Your task to perform on an android device: Go to Android settings Image 0: 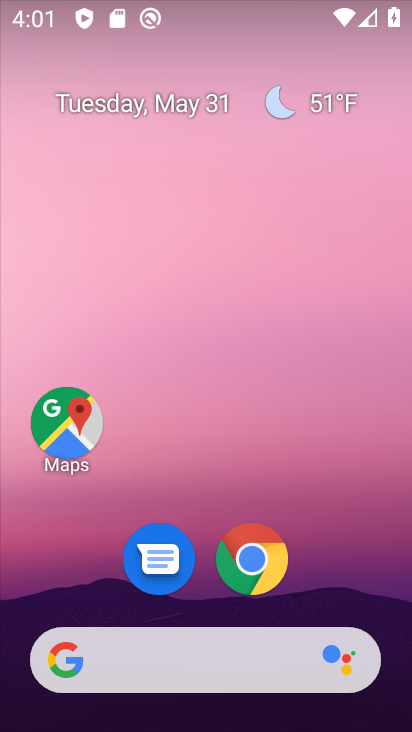
Step 0: drag from (332, 592) to (326, 4)
Your task to perform on an android device: Go to Android settings Image 1: 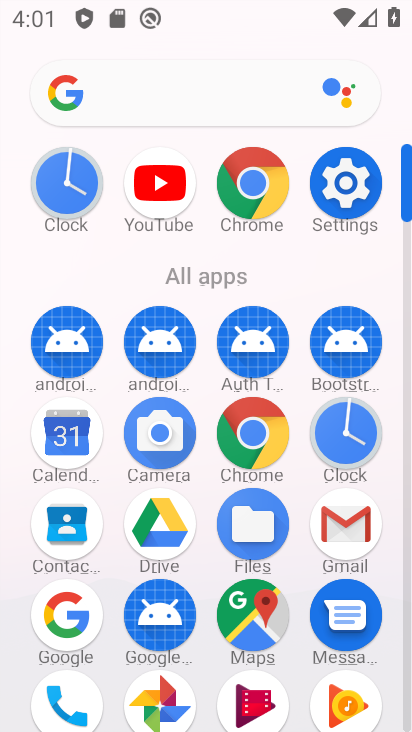
Step 1: click (345, 184)
Your task to perform on an android device: Go to Android settings Image 2: 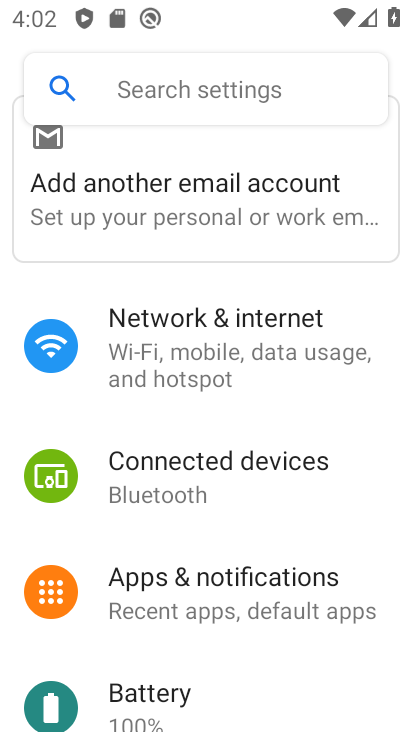
Step 2: drag from (300, 664) to (300, 3)
Your task to perform on an android device: Go to Android settings Image 3: 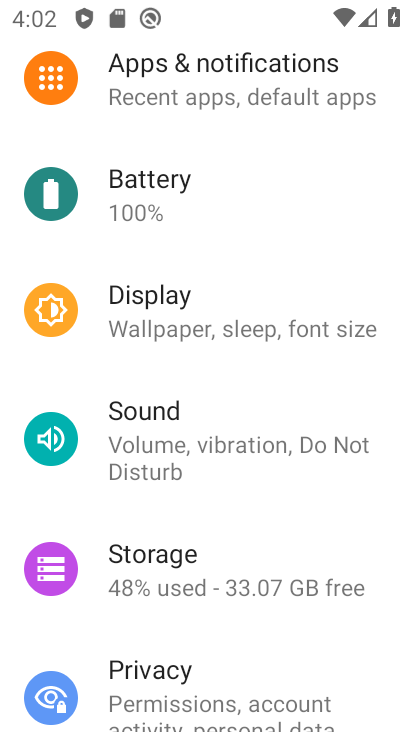
Step 3: drag from (249, 620) to (239, 100)
Your task to perform on an android device: Go to Android settings Image 4: 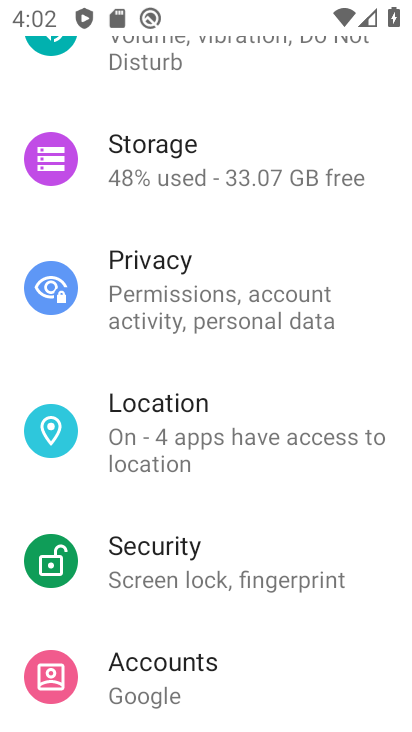
Step 4: drag from (119, 601) to (117, 73)
Your task to perform on an android device: Go to Android settings Image 5: 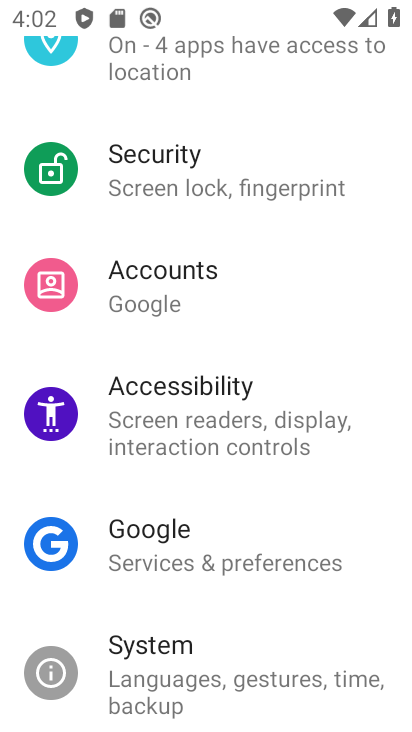
Step 5: click (184, 702)
Your task to perform on an android device: Go to Android settings Image 6: 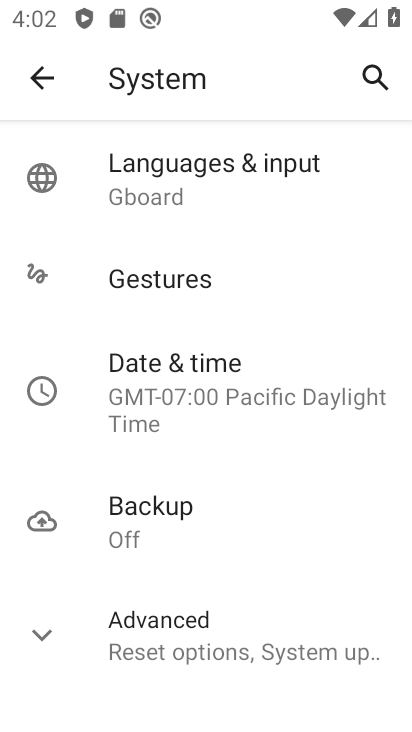
Step 6: task complete